Your task to perform on an android device: turn on location history Image 0: 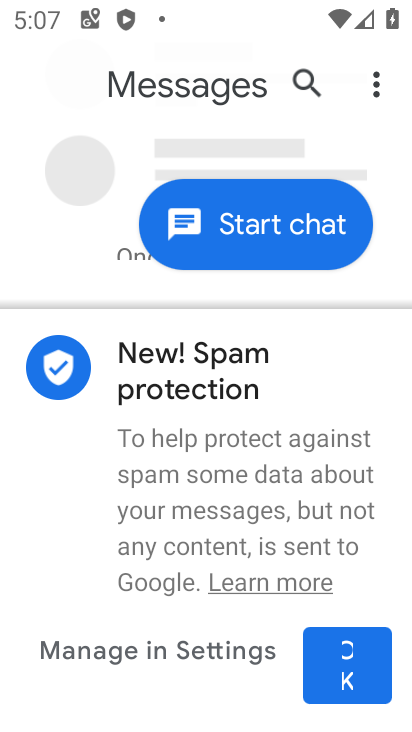
Step 0: press home button
Your task to perform on an android device: turn on location history Image 1: 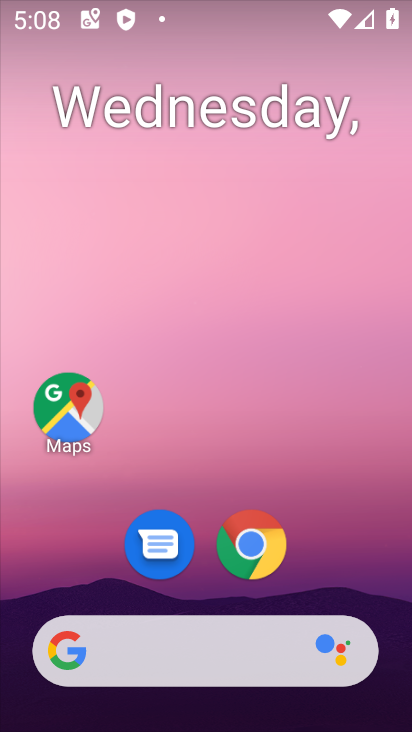
Step 1: drag from (390, 689) to (404, 136)
Your task to perform on an android device: turn on location history Image 2: 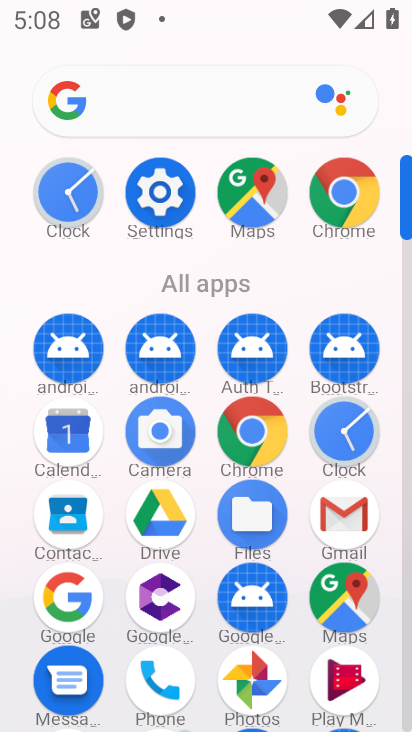
Step 2: click (173, 184)
Your task to perform on an android device: turn on location history Image 3: 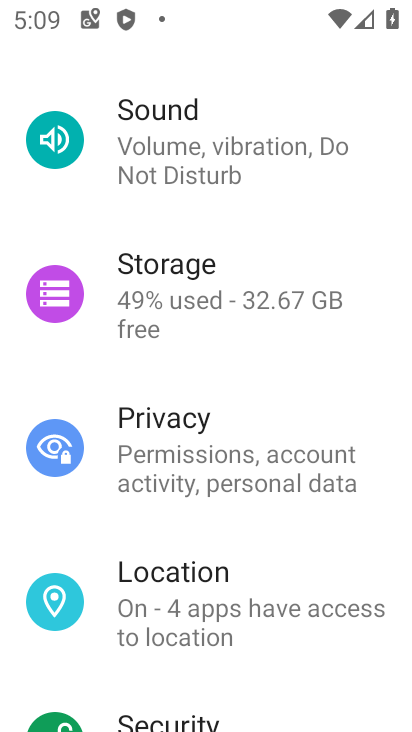
Step 3: click (187, 612)
Your task to perform on an android device: turn on location history Image 4: 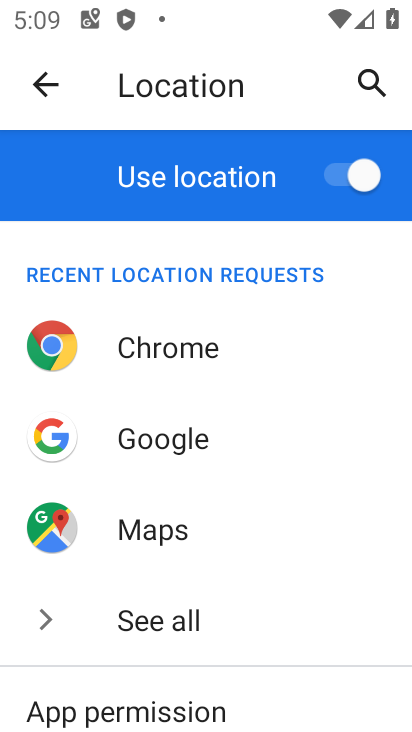
Step 4: drag from (277, 562) to (253, 247)
Your task to perform on an android device: turn on location history Image 5: 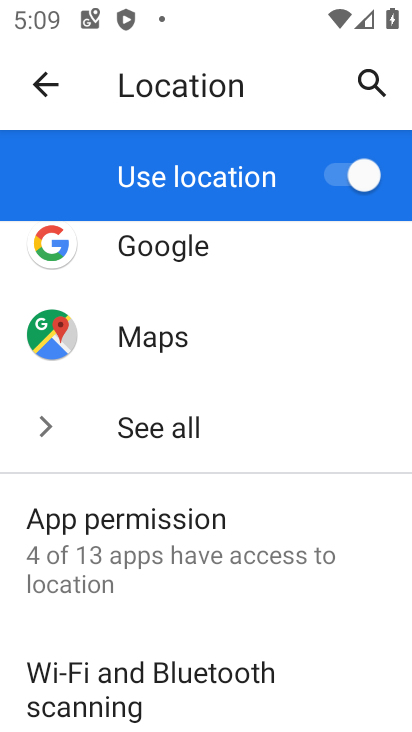
Step 5: drag from (325, 624) to (276, 342)
Your task to perform on an android device: turn on location history Image 6: 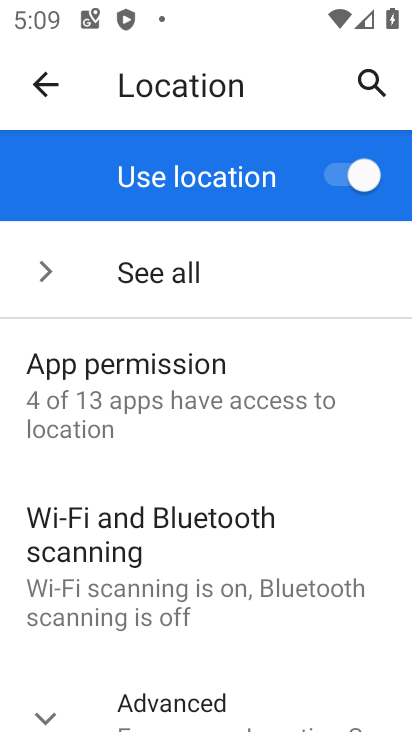
Step 6: drag from (282, 675) to (271, 332)
Your task to perform on an android device: turn on location history Image 7: 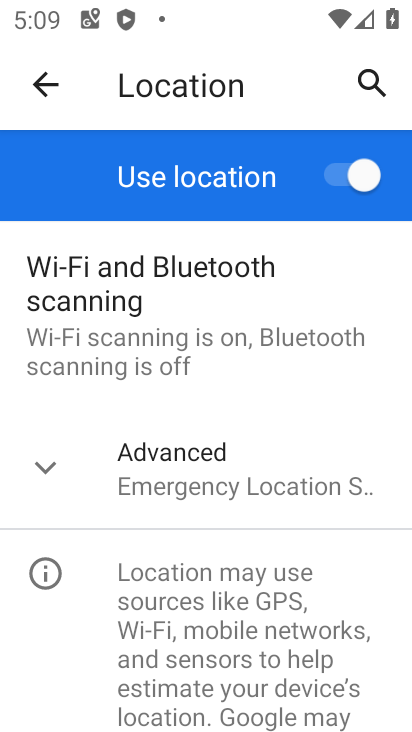
Step 7: click (46, 462)
Your task to perform on an android device: turn on location history Image 8: 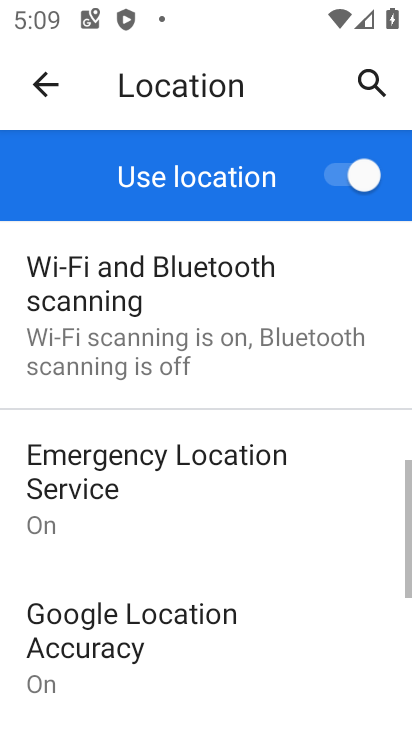
Step 8: task complete